Your task to perform on an android device: Go to internet settings Image 0: 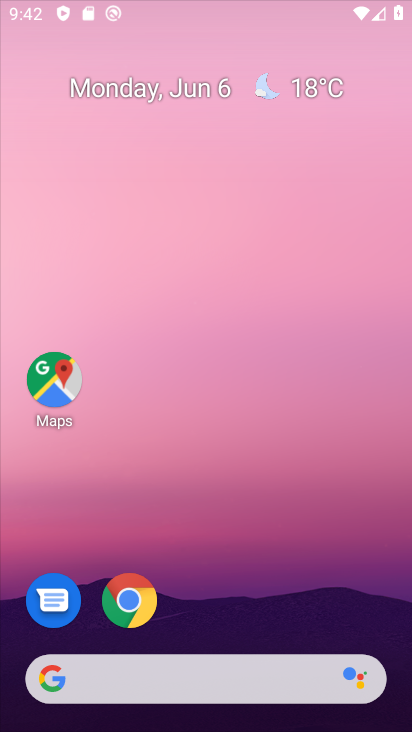
Step 0: drag from (222, 556) to (238, 43)
Your task to perform on an android device: Go to internet settings Image 1: 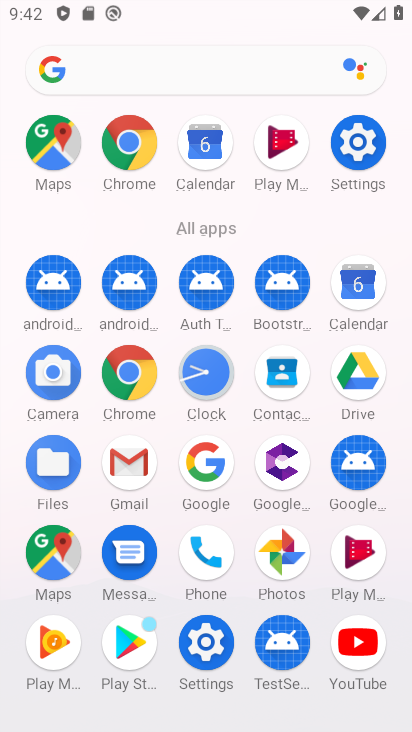
Step 1: click (203, 641)
Your task to perform on an android device: Go to internet settings Image 2: 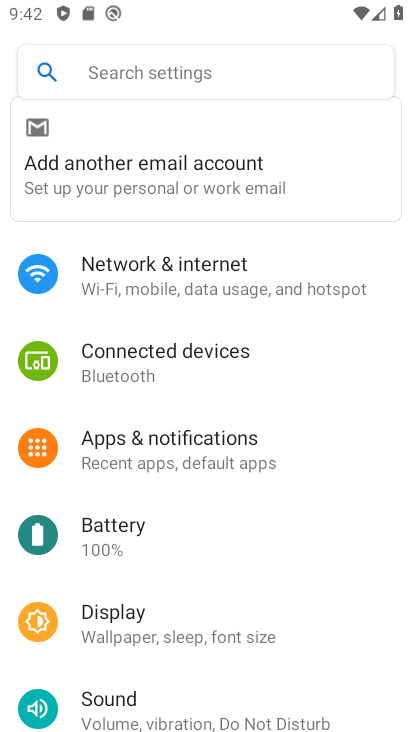
Step 2: click (211, 272)
Your task to perform on an android device: Go to internet settings Image 3: 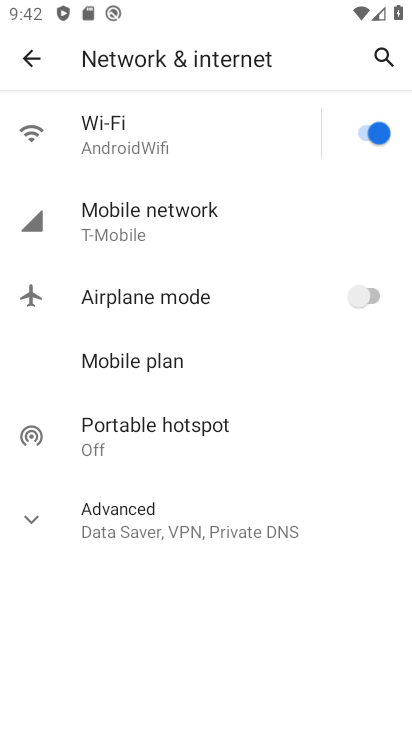
Step 3: click (30, 526)
Your task to perform on an android device: Go to internet settings Image 4: 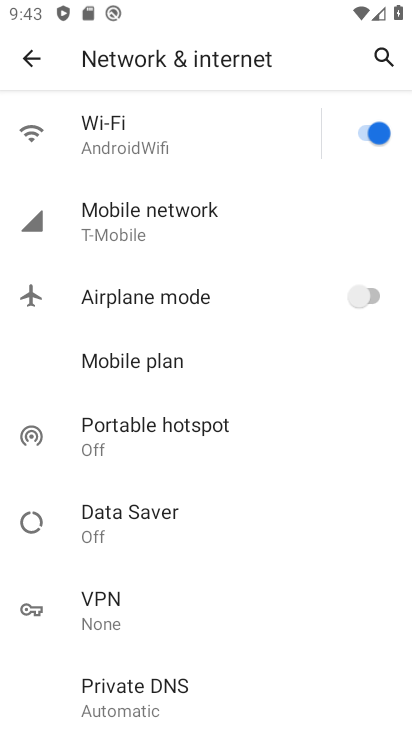
Step 4: task complete